Your task to perform on an android device: Clear all items from cart on amazon.com. Search for razer nari on amazon.com, select the first entry, and add it to the cart. Image 0: 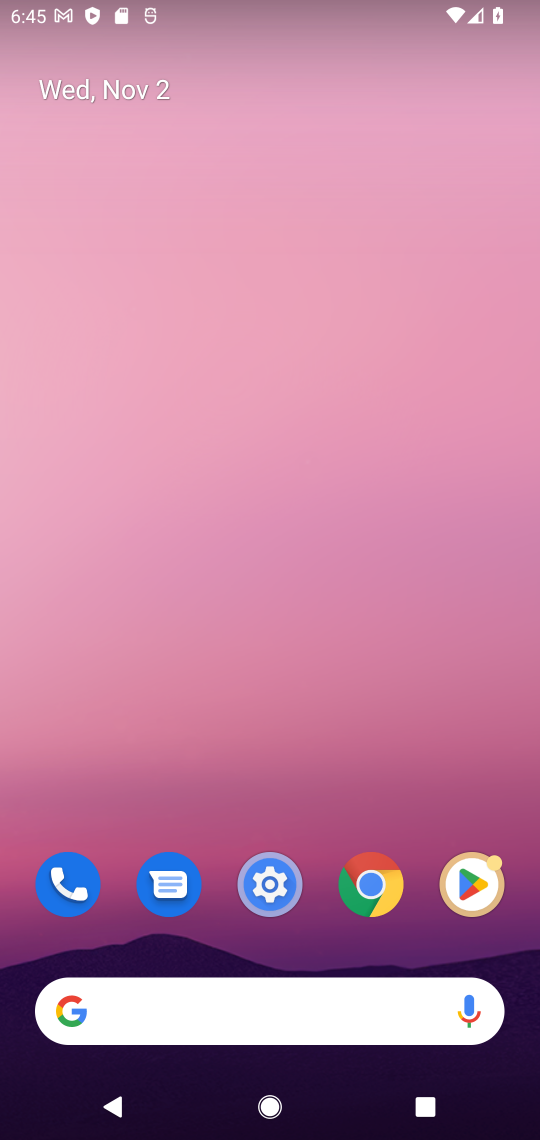
Step 0: click (293, 1023)
Your task to perform on an android device: Clear all items from cart on amazon.com. Search for razer nari on amazon.com, select the first entry, and add it to the cart. Image 1: 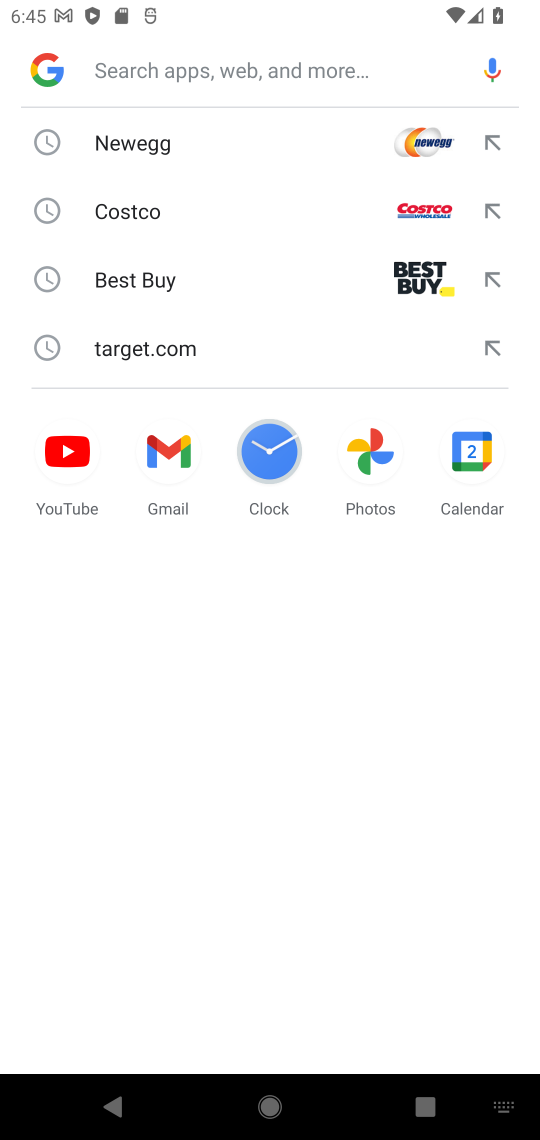
Step 1: type "amazon"
Your task to perform on an android device: Clear all items from cart on amazon.com. Search for razer nari on amazon.com, select the first entry, and add it to the cart. Image 2: 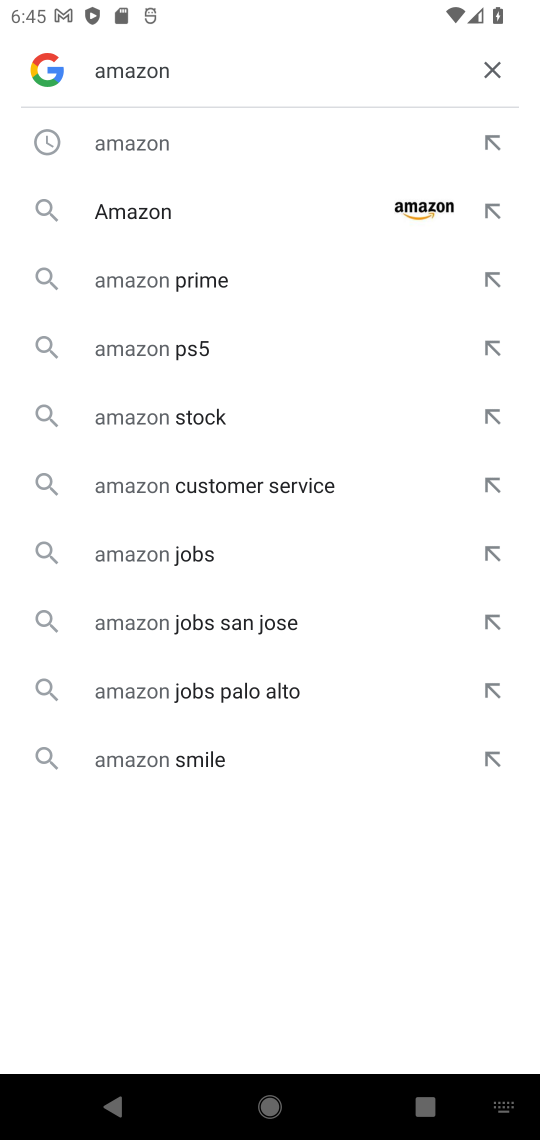
Step 2: click (140, 212)
Your task to perform on an android device: Clear all items from cart on amazon.com. Search for razer nari on amazon.com, select the first entry, and add it to the cart. Image 3: 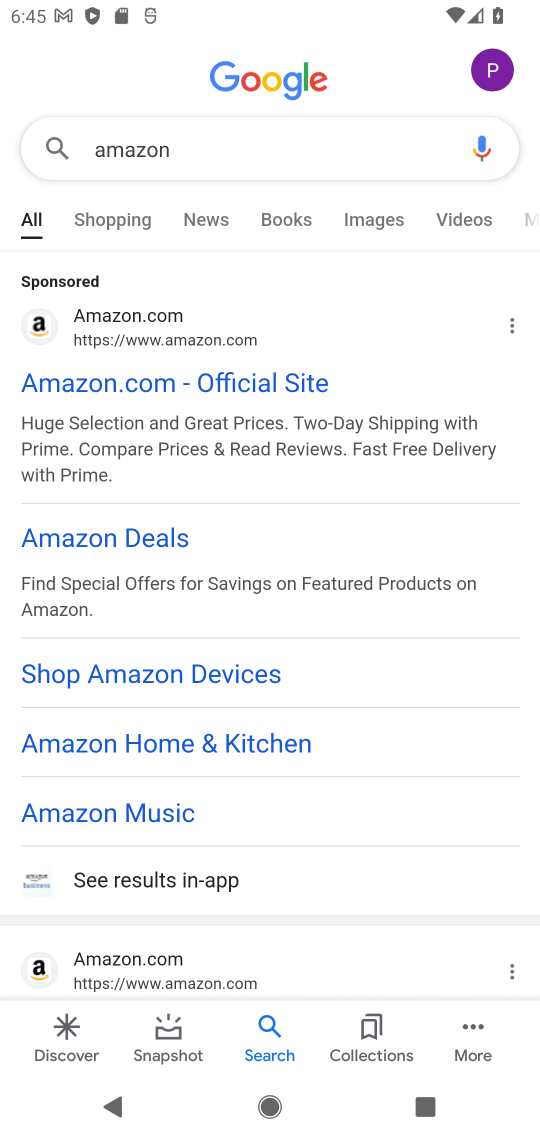
Step 3: click (195, 375)
Your task to perform on an android device: Clear all items from cart on amazon.com. Search for razer nari on amazon.com, select the first entry, and add it to the cart. Image 4: 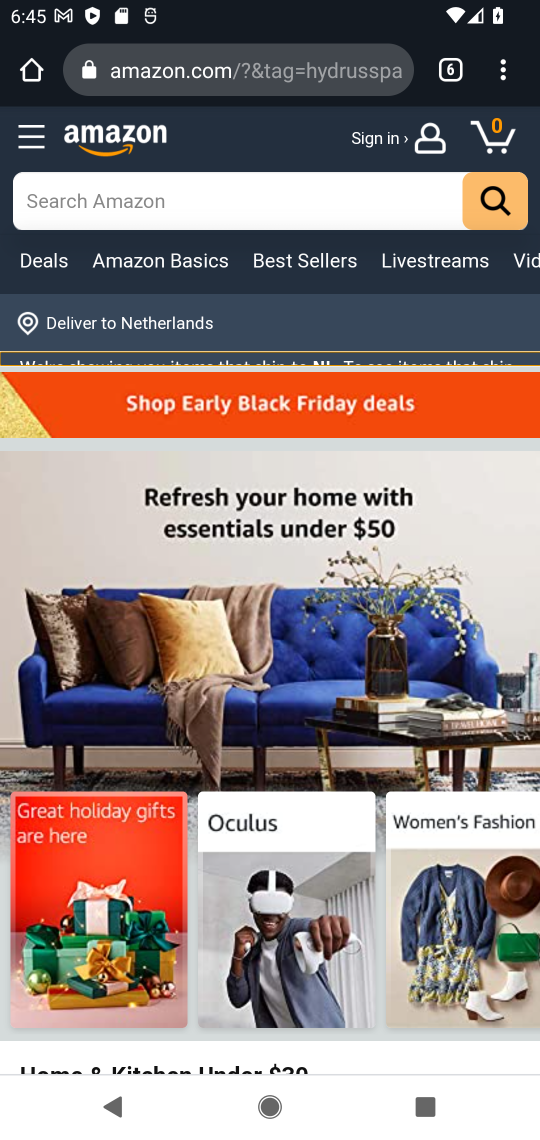
Step 4: click (236, 211)
Your task to perform on an android device: Clear all items from cart on amazon.com. Search for razer nari on amazon.com, select the first entry, and add it to the cart. Image 5: 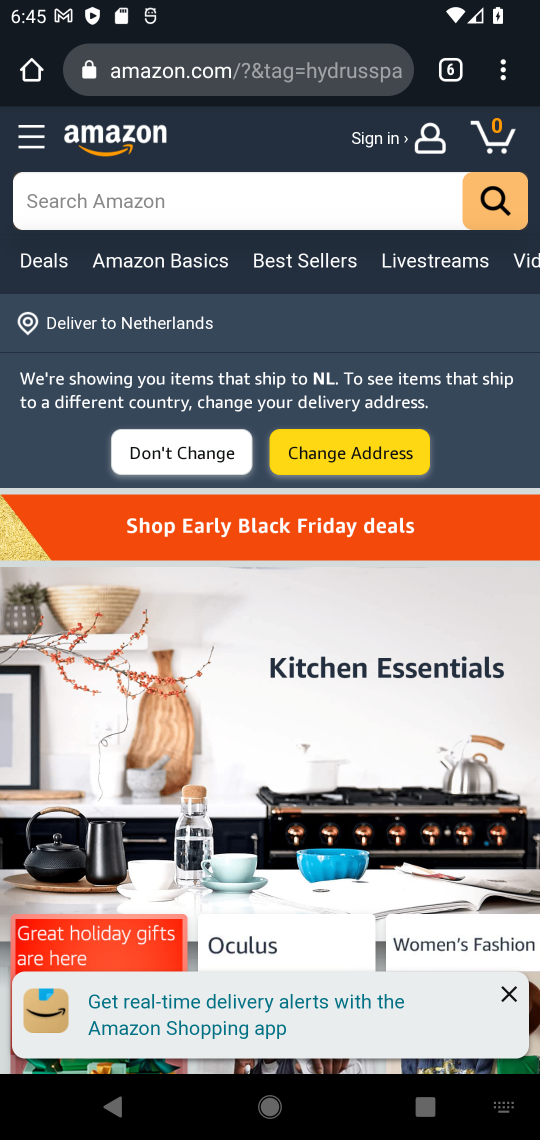
Step 5: type "razer nazi"
Your task to perform on an android device: Clear all items from cart on amazon.com. Search for razer nari on amazon.com, select the first entry, and add it to the cart. Image 6: 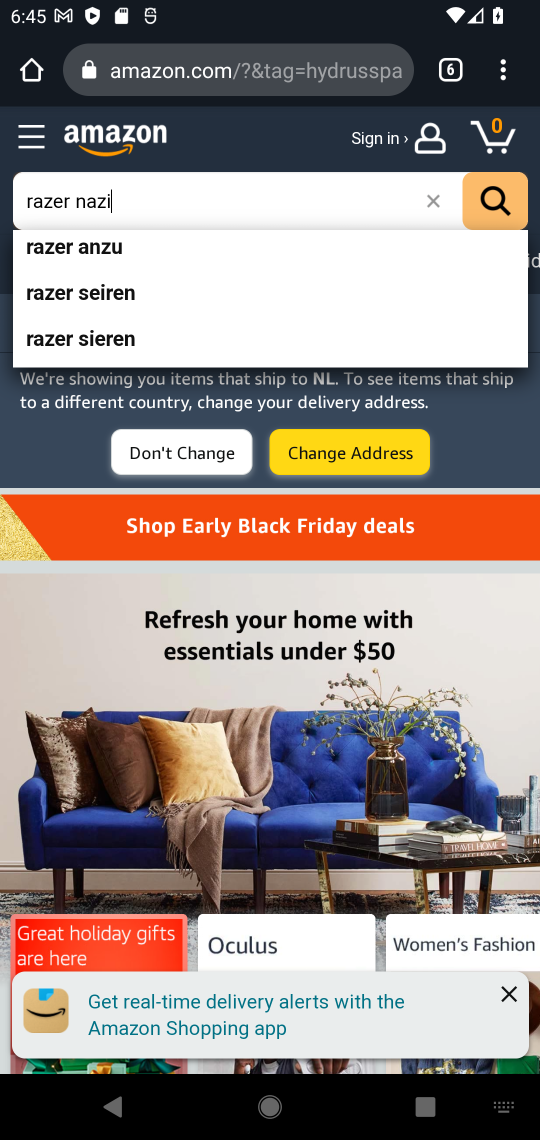
Step 6: click (505, 210)
Your task to perform on an android device: Clear all items from cart on amazon.com. Search for razer nari on amazon.com, select the first entry, and add it to the cart. Image 7: 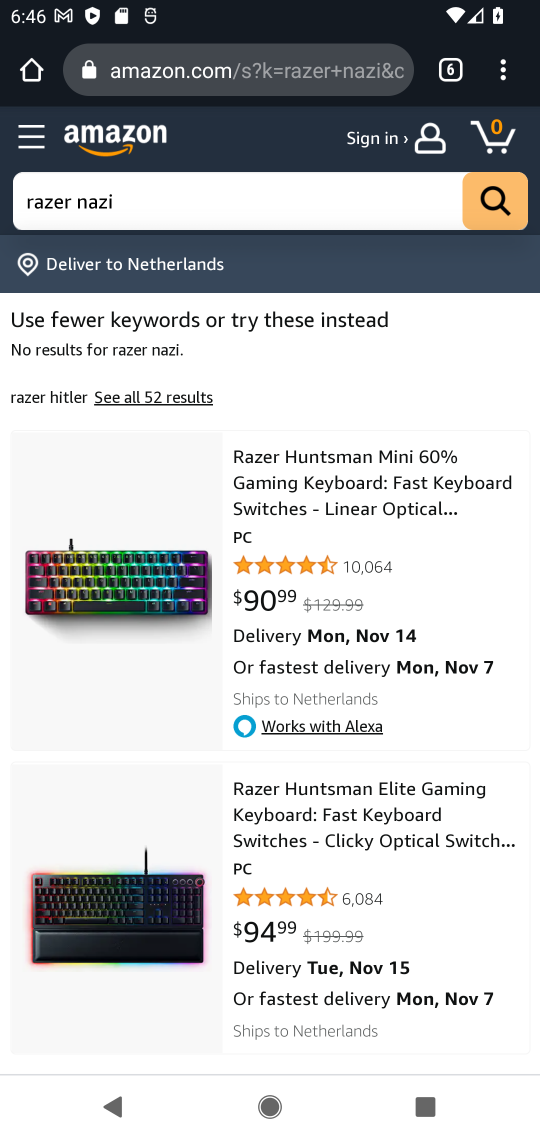
Step 7: click (364, 478)
Your task to perform on an android device: Clear all items from cart on amazon.com. Search for razer nari on amazon.com, select the first entry, and add it to the cart. Image 8: 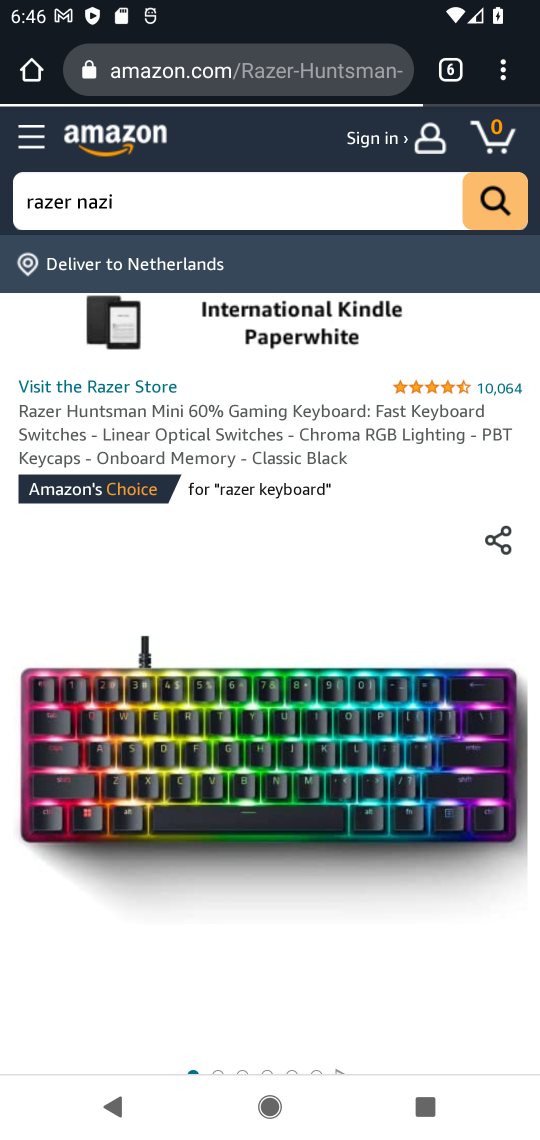
Step 8: drag from (369, 947) to (370, 422)
Your task to perform on an android device: Clear all items from cart on amazon.com. Search for razer nari on amazon.com, select the first entry, and add it to the cart. Image 9: 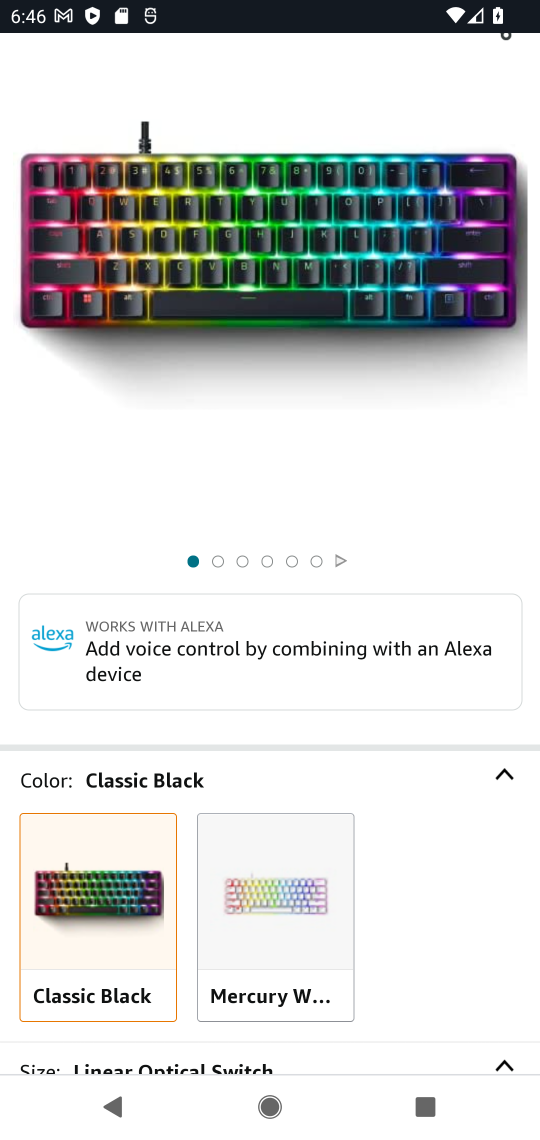
Step 9: drag from (417, 950) to (376, 480)
Your task to perform on an android device: Clear all items from cart on amazon.com. Search for razer nari on amazon.com, select the first entry, and add it to the cart. Image 10: 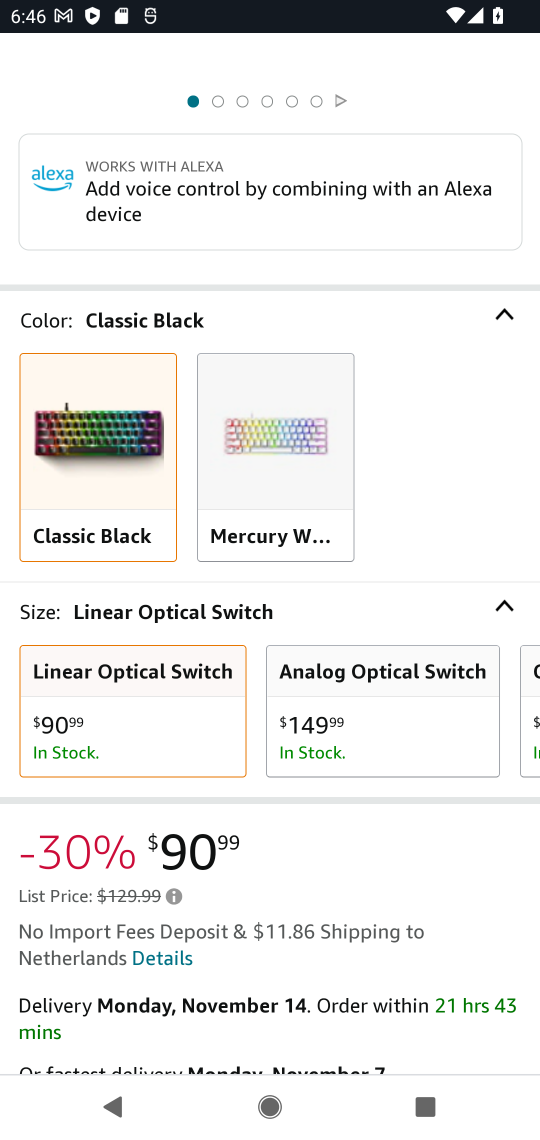
Step 10: drag from (394, 891) to (359, 358)
Your task to perform on an android device: Clear all items from cart on amazon.com. Search for razer nari on amazon.com, select the first entry, and add it to the cart. Image 11: 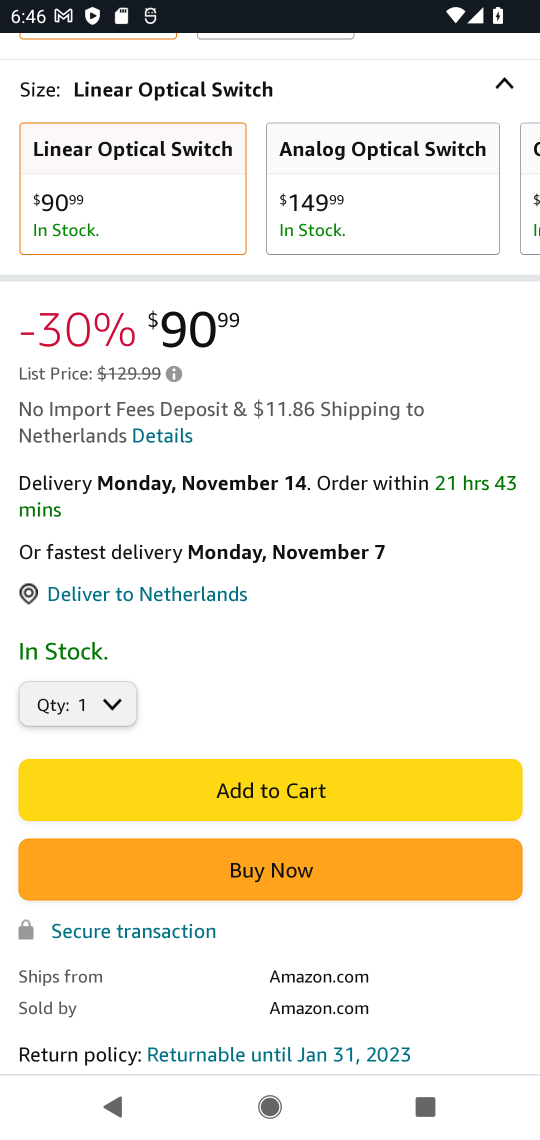
Step 11: click (318, 790)
Your task to perform on an android device: Clear all items from cart on amazon.com. Search for razer nari on amazon.com, select the first entry, and add it to the cart. Image 12: 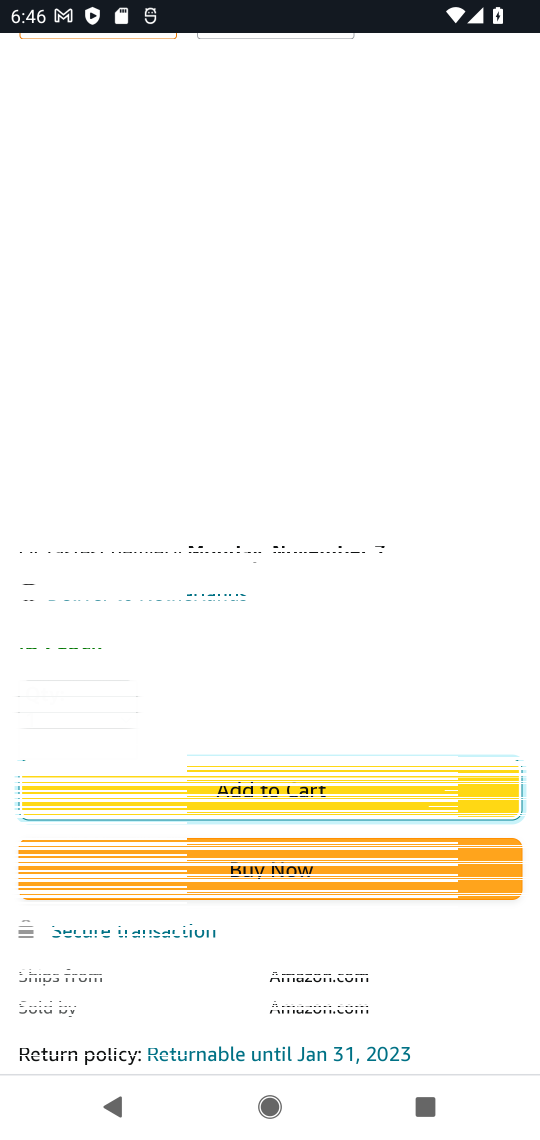
Step 12: task complete